Your task to perform on an android device: check google app version Image 0: 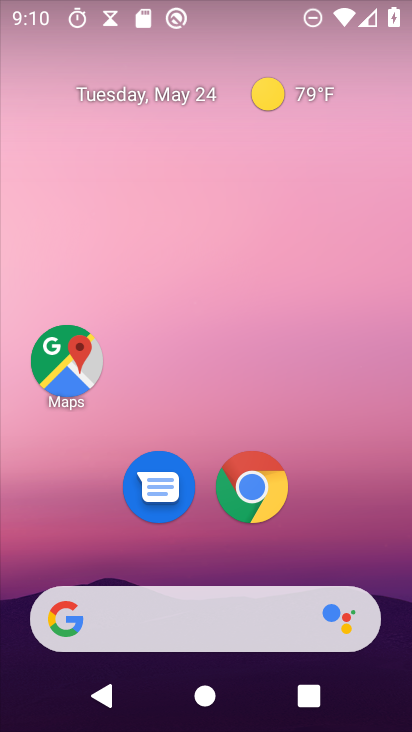
Step 0: press home button
Your task to perform on an android device: check google app version Image 1: 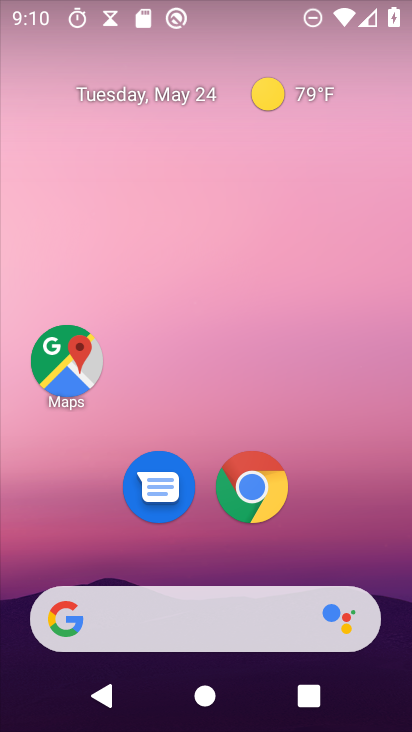
Step 1: drag from (6, 370) to (190, 97)
Your task to perform on an android device: check google app version Image 2: 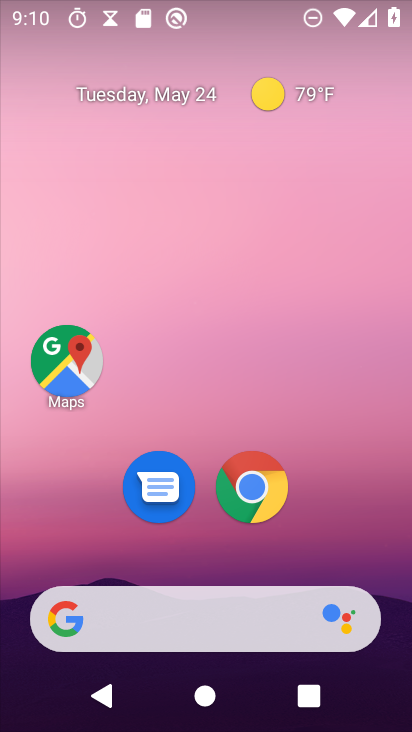
Step 2: drag from (60, 538) to (253, 147)
Your task to perform on an android device: check google app version Image 3: 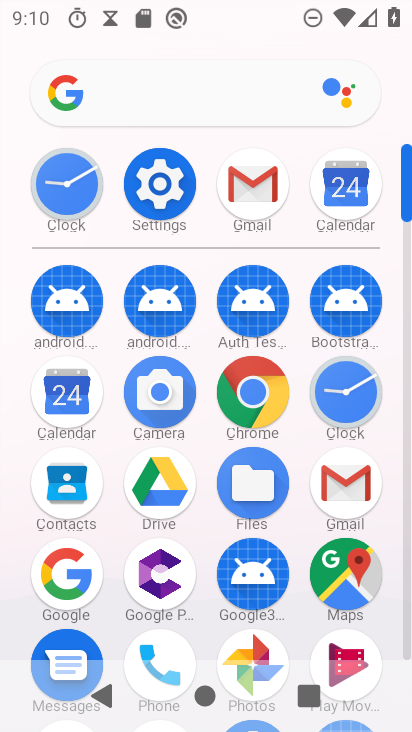
Step 3: click (245, 593)
Your task to perform on an android device: check google app version Image 4: 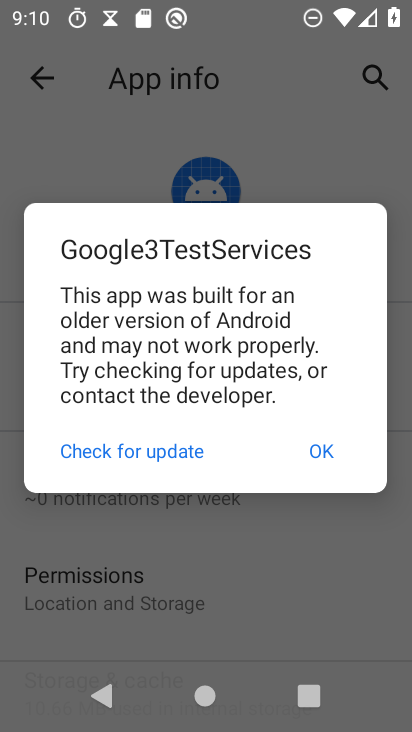
Step 4: click (324, 449)
Your task to perform on an android device: check google app version Image 5: 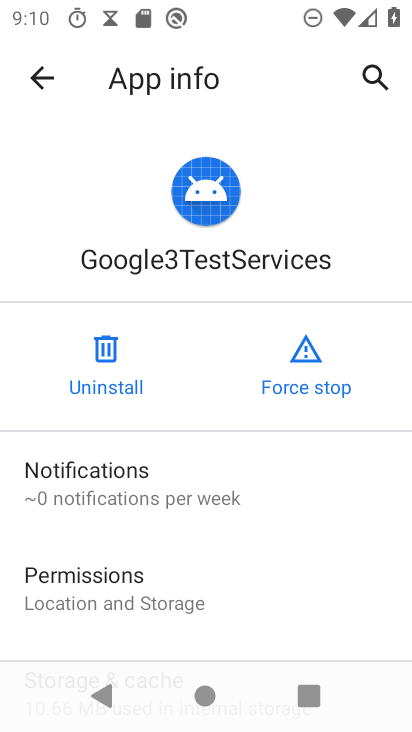
Step 5: drag from (60, 615) to (212, 84)
Your task to perform on an android device: check google app version Image 6: 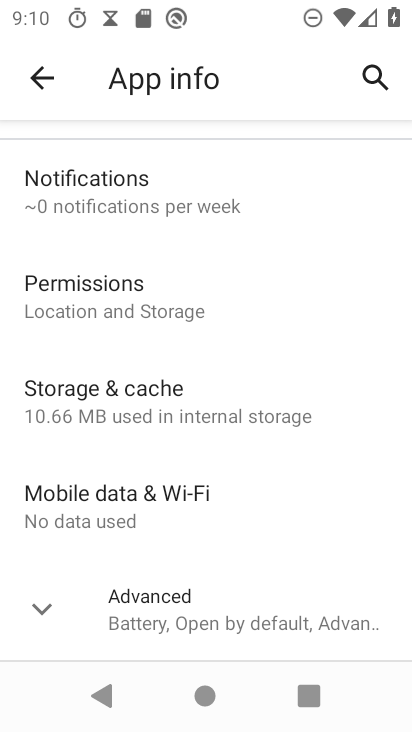
Step 6: click (94, 611)
Your task to perform on an android device: check google app version Image 7: 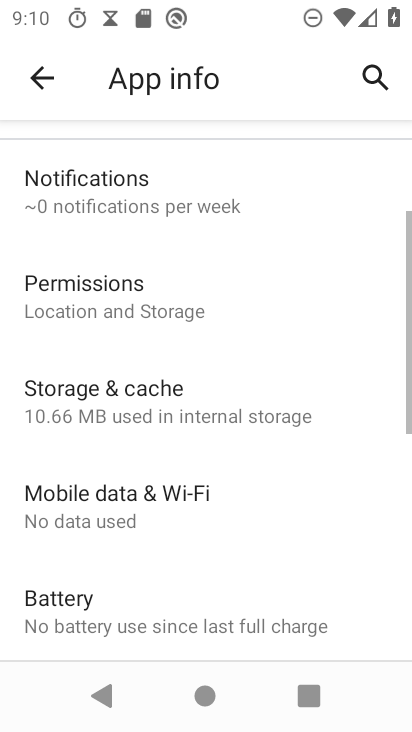
Step 7: task complete